Your task to perform on an android device: Search for Italian restaurants on Maps Image 0: 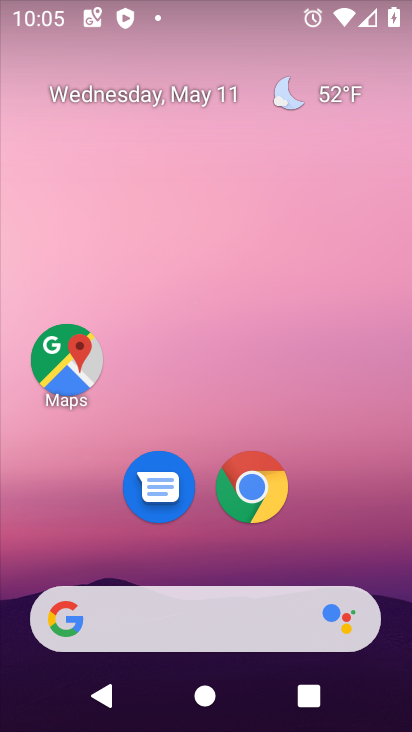
Step 0: click (54, 336)
Your task to perform on an android device: Search for Italian restaurants on Maps Image 1: 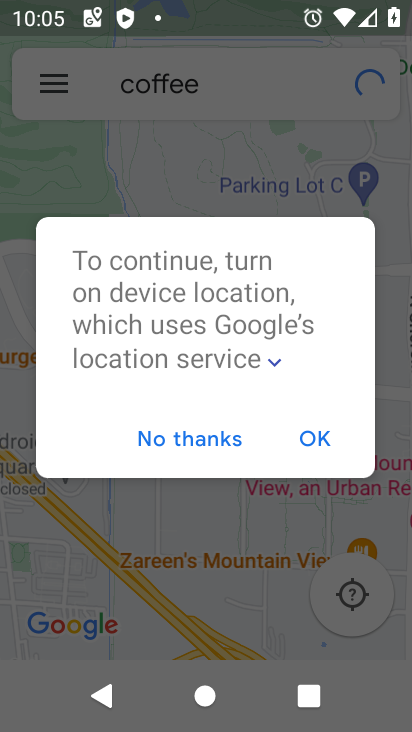
Step 1: click (308, 430)
Your task to perform on an android device: Search for Italian restaurants on Maps Image 2: 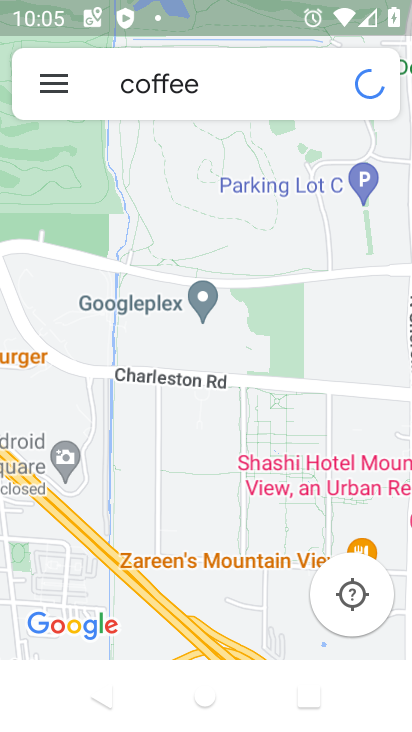
Step 2: click (260, 92)
Your task to perform on an android device: Search for Italian restaurants on Maps Image 3: 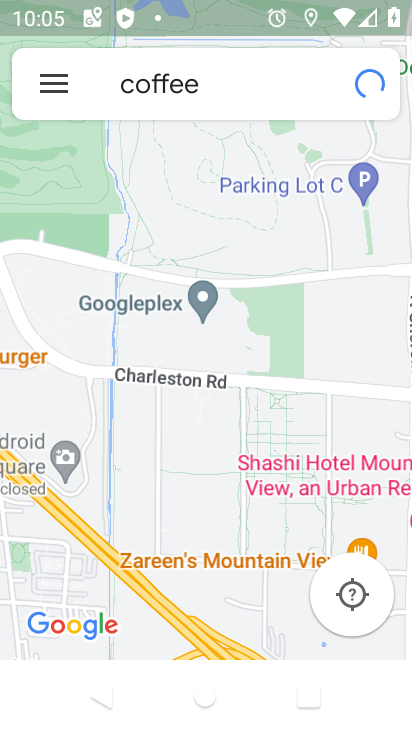
Step 3: click (197, 80)
Your task to perform on an android device: Search for Italian restaurants on Maps Image 4: 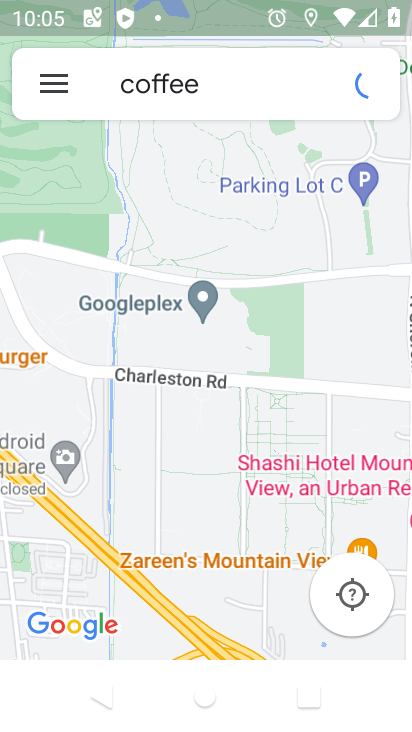
Step 4: click (197, 80)
Your task to perform on an android device: Search for Italian restaurants on Maps Image 5: 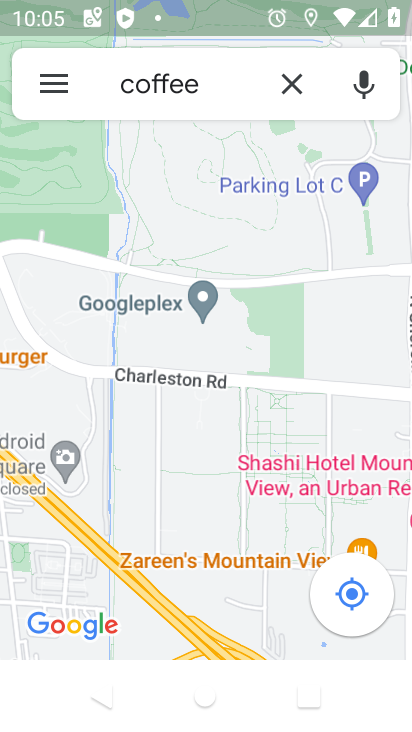
Step 5: click (197, 80)
Your task to perform on an android device: Search for Italian restaurants on Maps Image 6: 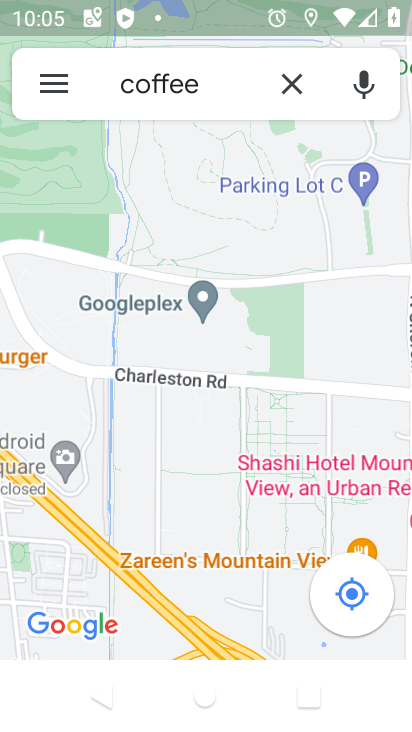
Step 6: click (281, 78)
Your task to perform on an android device: Search for Italian restaurants on Maps Image 7: 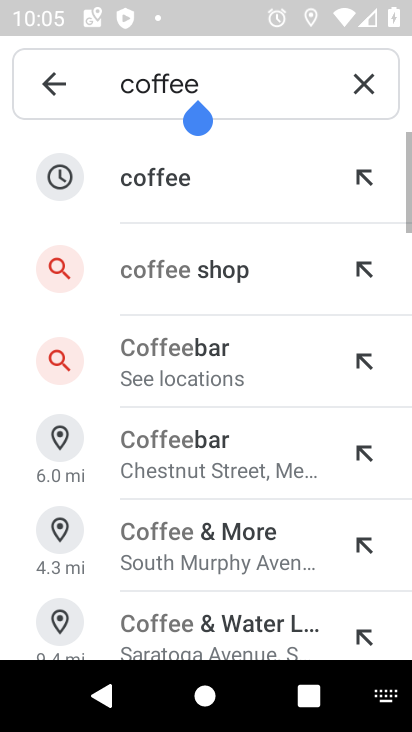
Step 7: click (367, 75)
Your task to perform on an android device: Search for Italian restaurants on Maps Image 8: 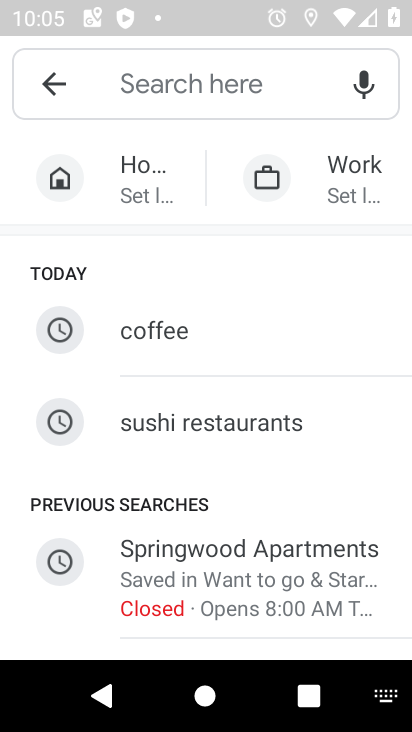
Step 8: type "Italian restaurants"
Your task to perform on an android device: Search for Italian restaurants on Maps Image 9: 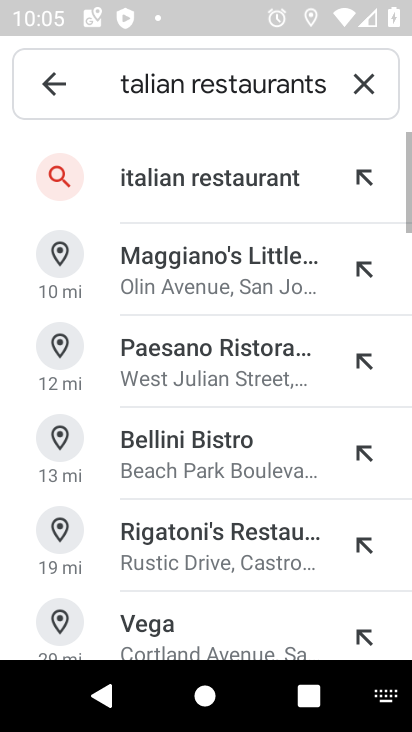
Step 9: click (207, 187)
Your task to perform on an android device: Search for Italian restaurants on Maps Image 10: 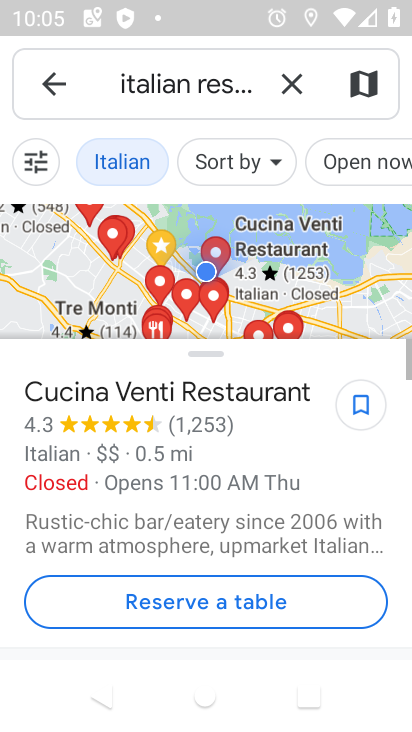
Step 10: task complete